Your task to perform on an android device: Open Reddit.com Image 0: 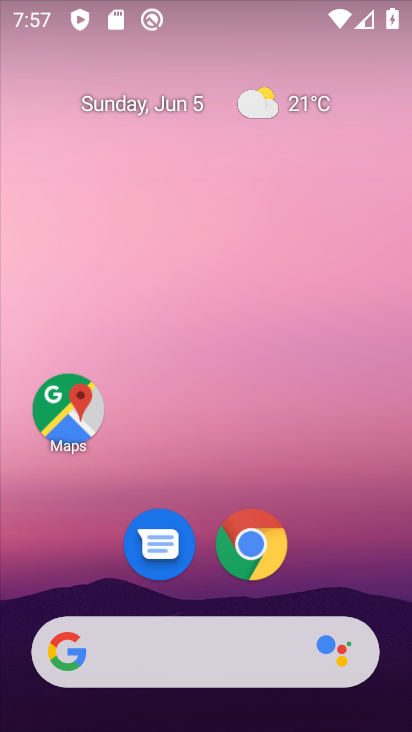
Step 0: click (251, 537)
Your task to perform on an android device: Open Reddit.com Image 1: 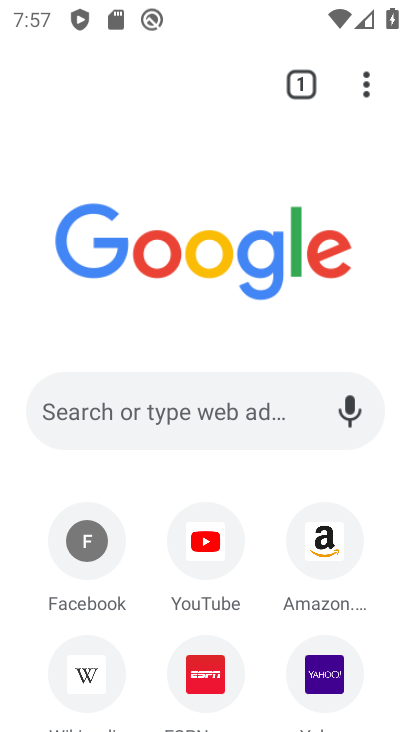
Step 1: click (179, 408)
Your task to perform on an android device: Open Reddit.com Image 2: 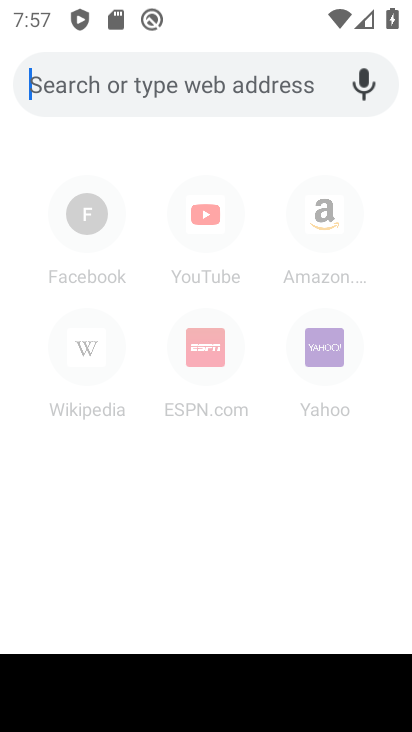
Step 2: type "Reddit.com"
Your task to perform on an android device: Open Reddit.com Image 3: 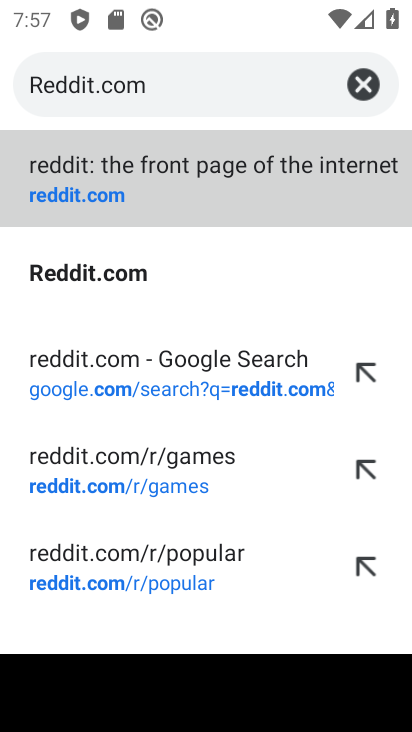
Step 3: click (74, 269)
Your task to perform on an android device: Open Reddit.com Image 4: 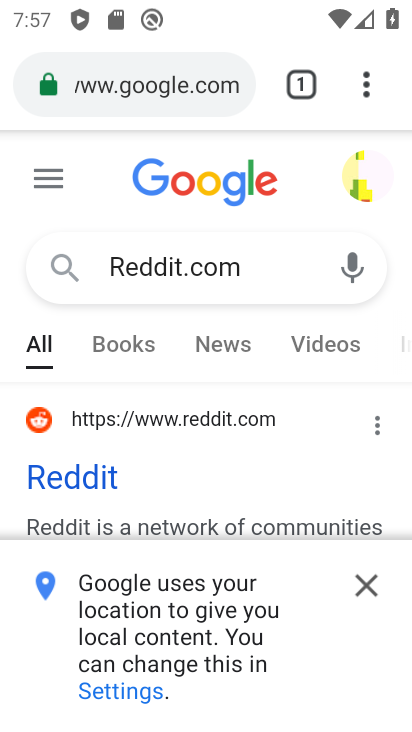
Step 4: click (369, 586)
Your task to perform on an android device: Open Reddit.com Image 5: 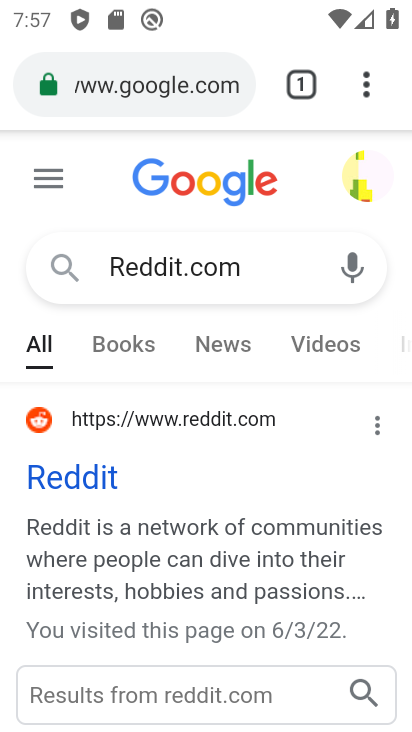
Step 5: task complete